Your task to perform on an android device: Go to Maps Image 0: 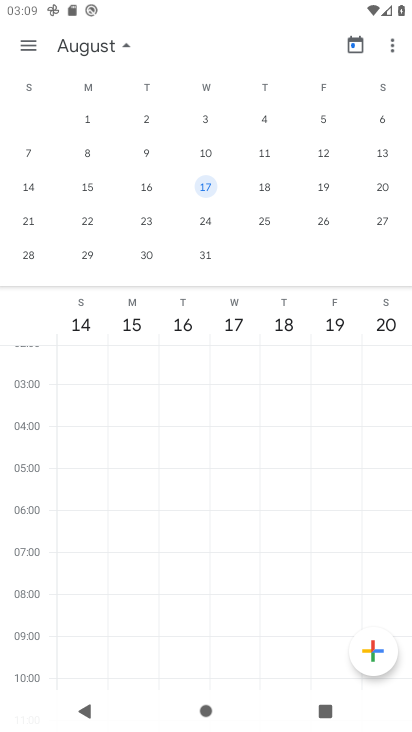
Step 0: press home button
Your task to perform on an android device: Go to Maps Image 1: 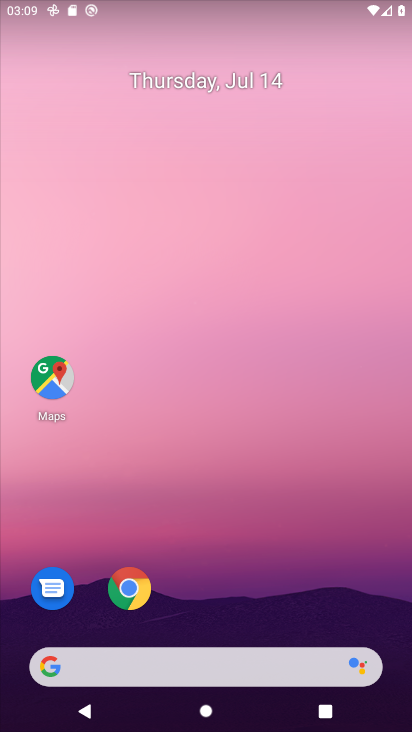
Step 1: click (37, 386)
Your task to perform on an android device: Go to Maps Image 2: 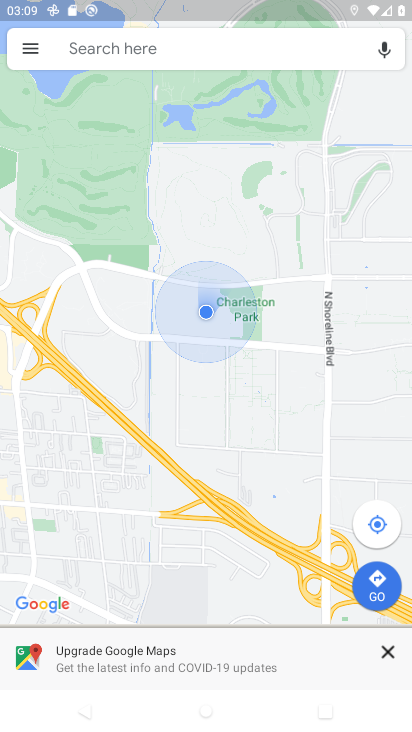
Step 2: task complete